Your task to perform on an android device: Check the news Image 0: 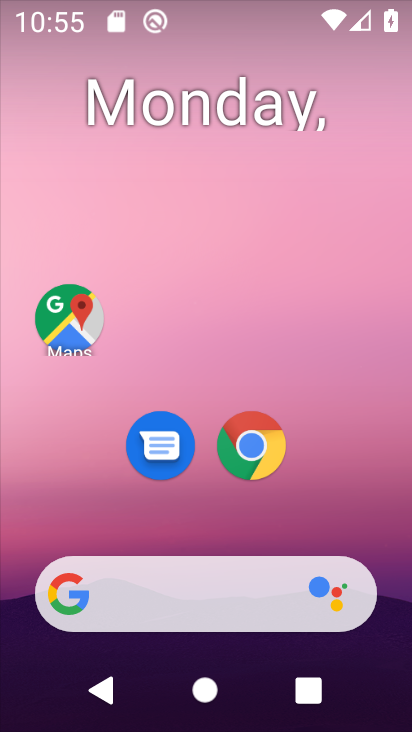
Step 0: drag from (199, 553) to (262, 245)
Your task to perform on an android device: Check the news Image 1: 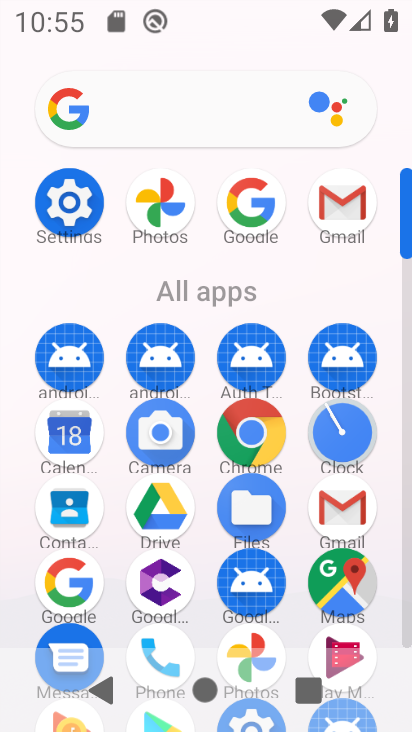
Step 1: drag from (196, 630) to (294, 289)
Your task to perform on an android device: Check the news Image 2: 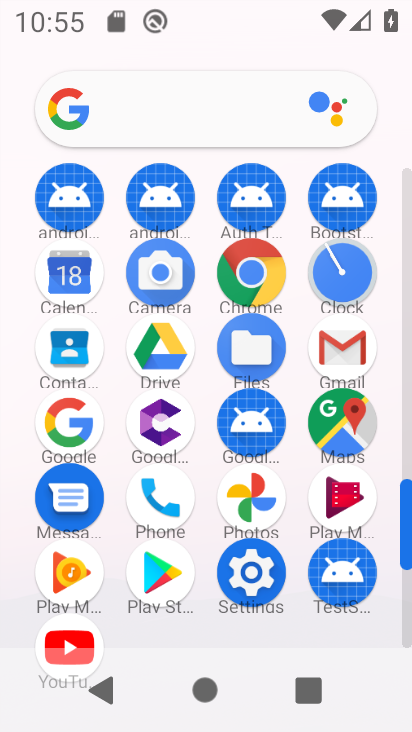
Step 2: click (57, 423)
Your task to perform on an android device: Check the news Image 3: 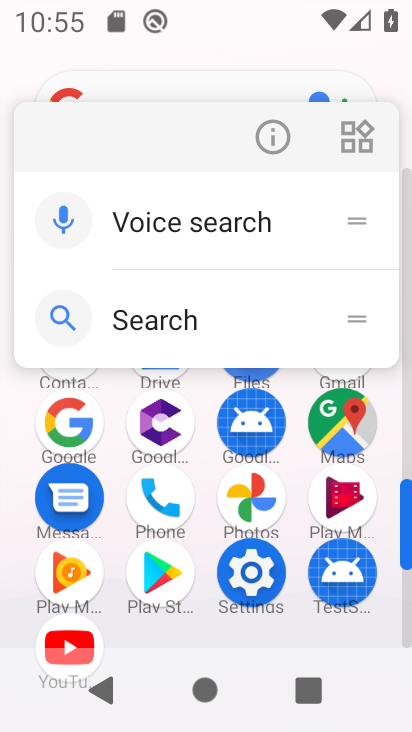
Step 3: click (78, 411)
Your task to perform on an android device: Check the news Image 4: 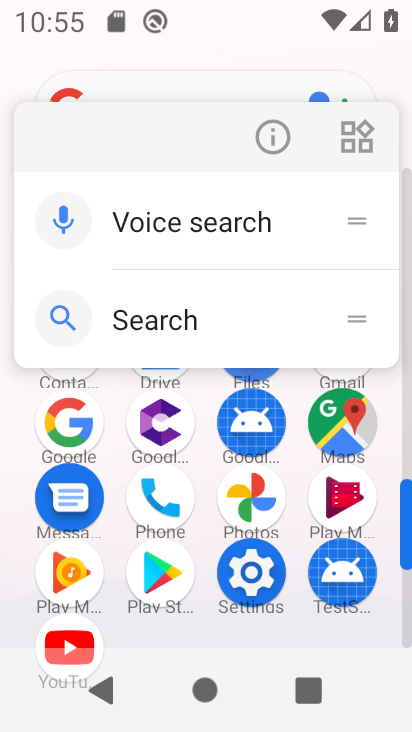
Step 4: click (69, 425)
Your task to perform on an android device: Check the news Image 5: 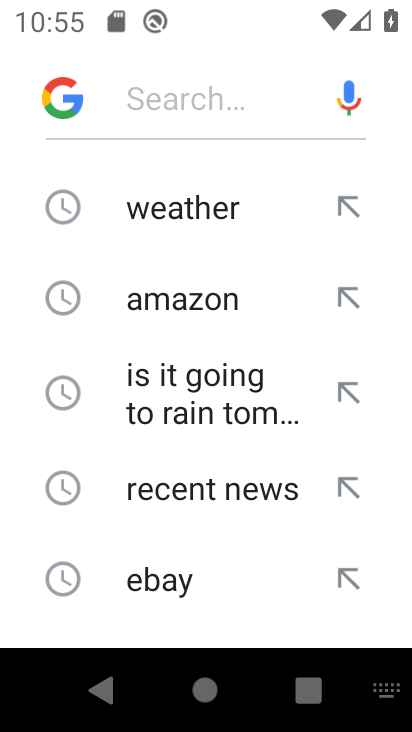
Step 5: task complete